Your task to perform on an android device: Add logitech g933 to the cart on ebay.com, then select checkout. Image 0: 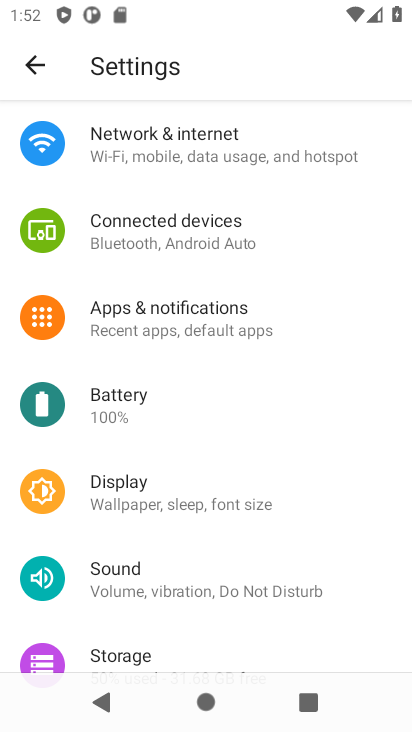
Step 0: press home button
Your task to perform on an android device: Add logitech g933 to the cart on ebay.com, then select checkout. Image 1: 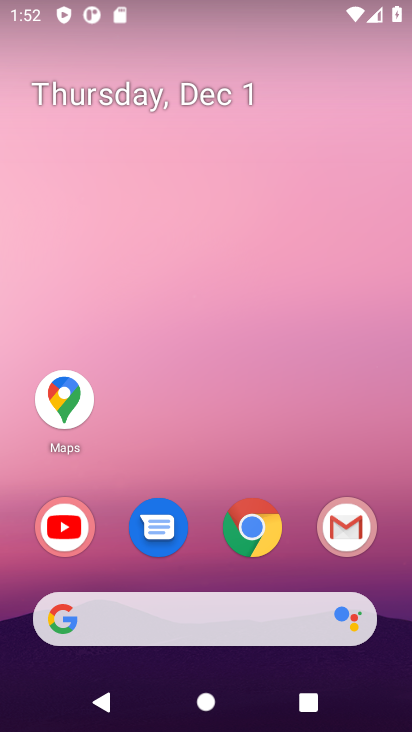
Step 1: click (259, 524)
Your task to perform on an android device: Add logitech g933 to the cart on ebay.com, then select checkout. Image 2: 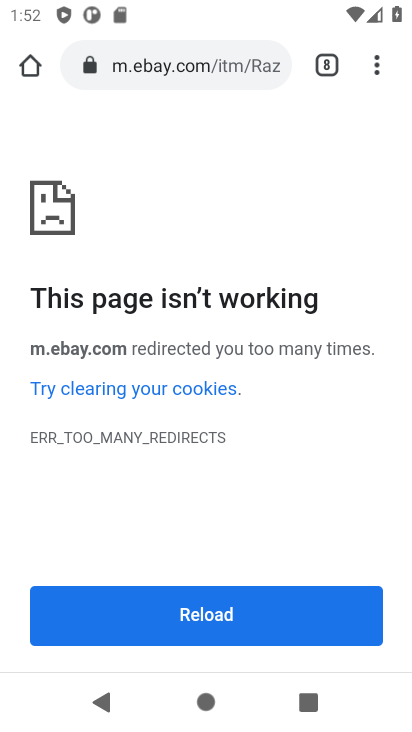
Step 2: click (201, 61)
Your task to perform on an android device: Add logitech g933 to the cart on ebay.com, then select checkout. Image 3: 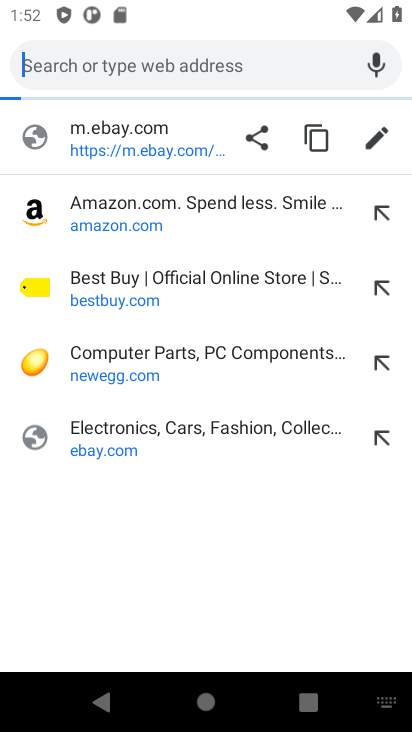
Step 3: click (115, 455)
Your task to perform on an android device: Add logitech g933 to the cart on ebay.com, then select checkout. Image 4: 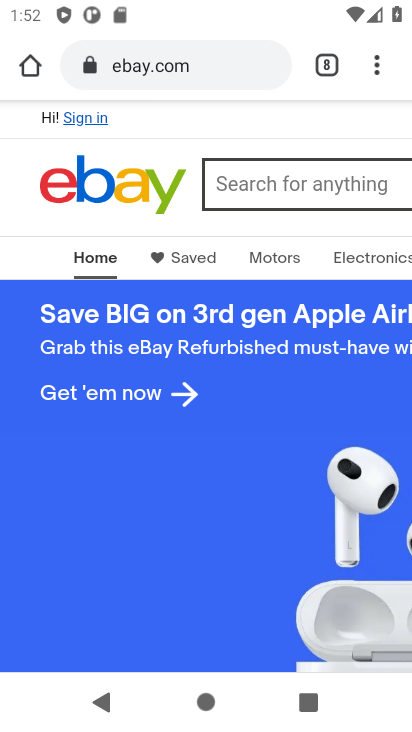
Step 4: click (247, 171)
Your task to perform on an android device: Add logitech g933 to the cart on ebay.com, then select checkout. Image 5: 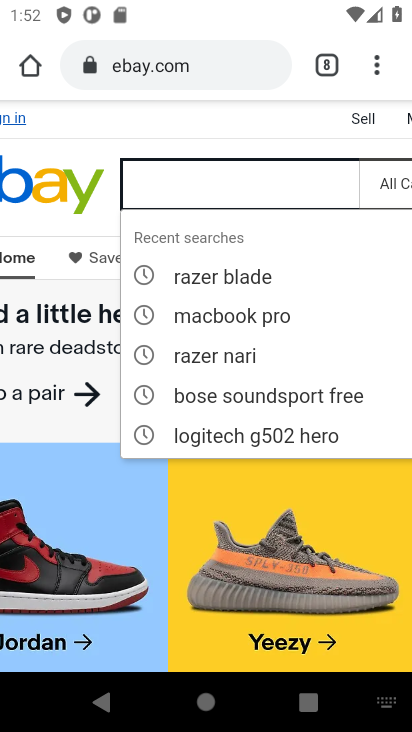
Step 5: type "logitech g933"
Your task to perform on an android device: Add logitech g933 to the cart on ebay.com, then select checkout. Image 6: 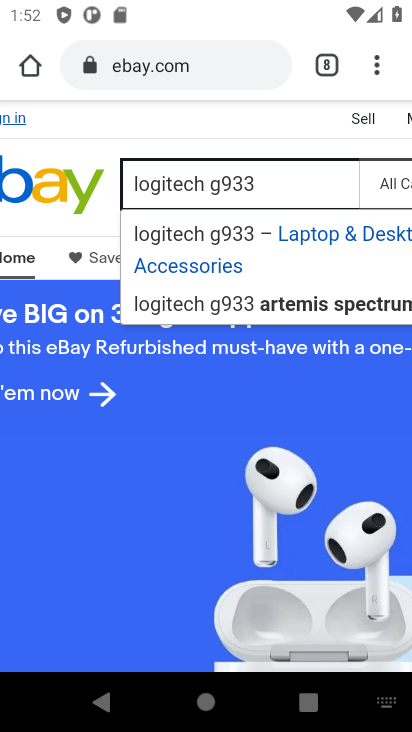
Step 6: click (218, 235)
Your task to perform on an android device: Add logitech g933 to the cart on ebay.com, then select checkout. Image 7: 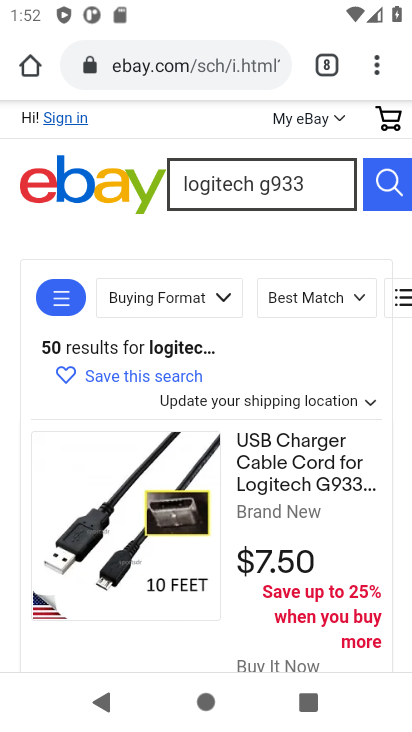
Step 7: drag from (179, 474) to (178, 274)
Your task to perform on an android device: Add logitech g933 to the cart on ebay.com, then select checkout. Image 8: 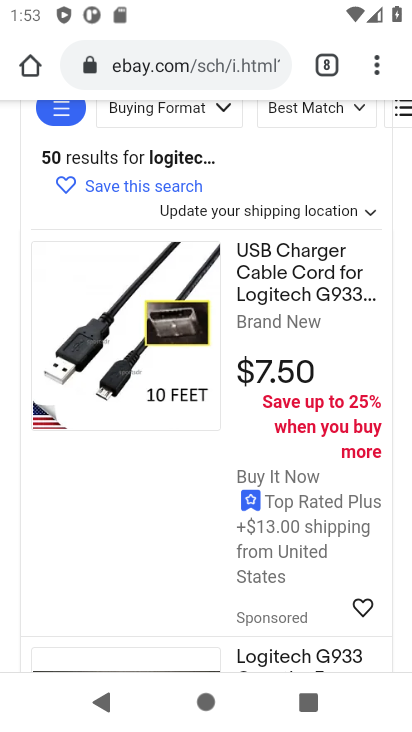
Step 8: click (273, 290)
Your task to perform on an android device: Add logitech g933 to the cart on ebay.com, then select checkout. Image 9: 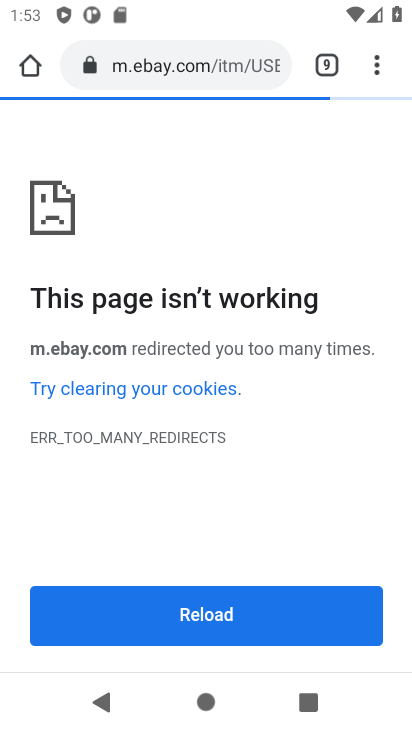
Step 9: task complete